Your task to perform on an android device: change the upload size in google photos Image 0: 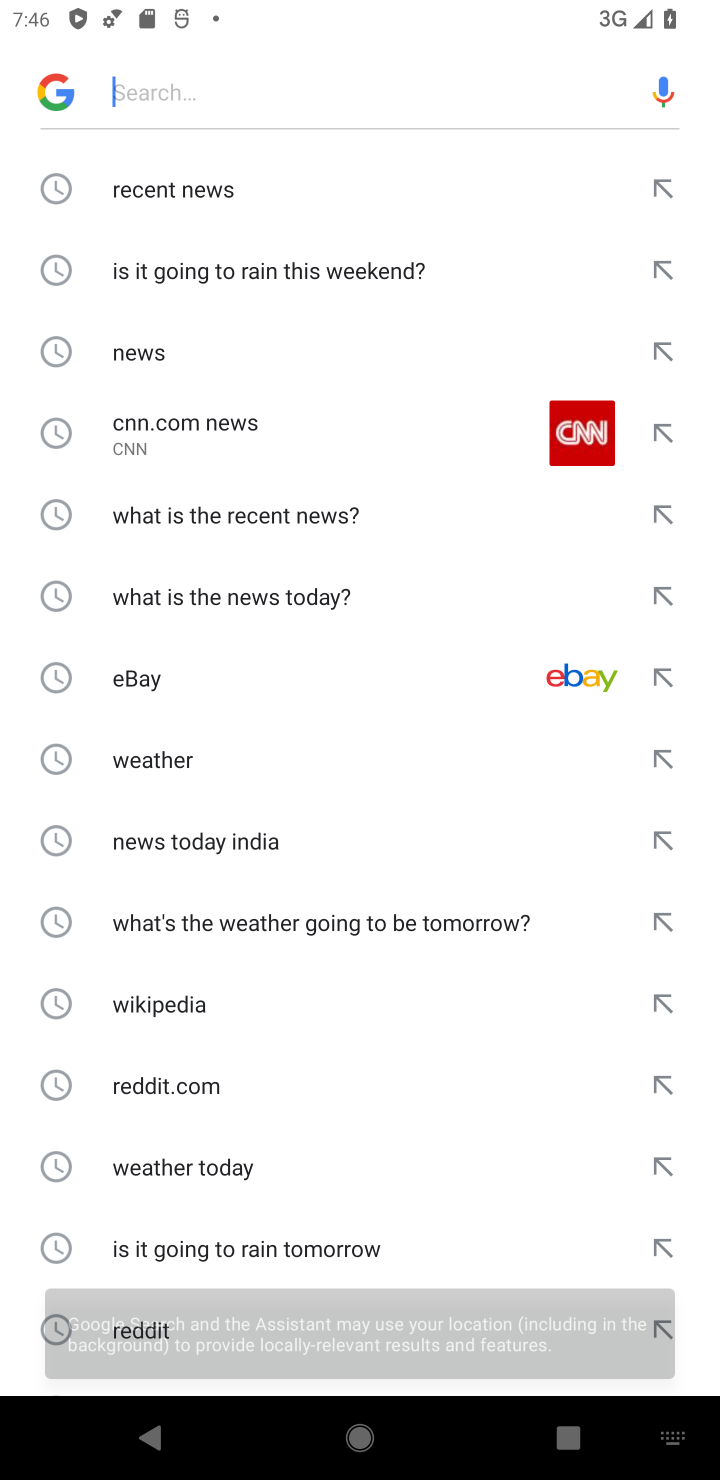
Step 0: press home button
Your task to perform on an android device: change the upload size in google photos Image 1: 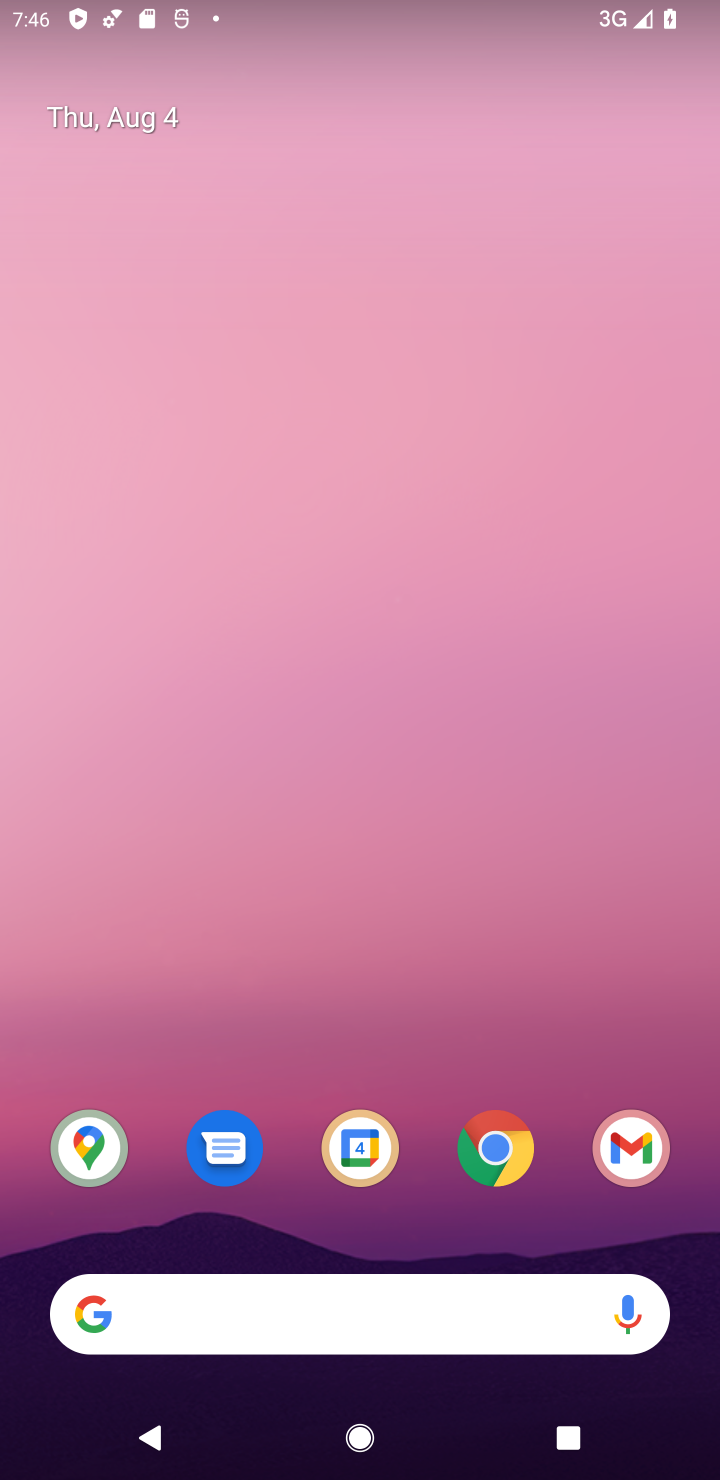
Step 1: drag from (555, 1096) to (441, 112)
Your task to perform on an android device: change the upload size in google photos Image 2: 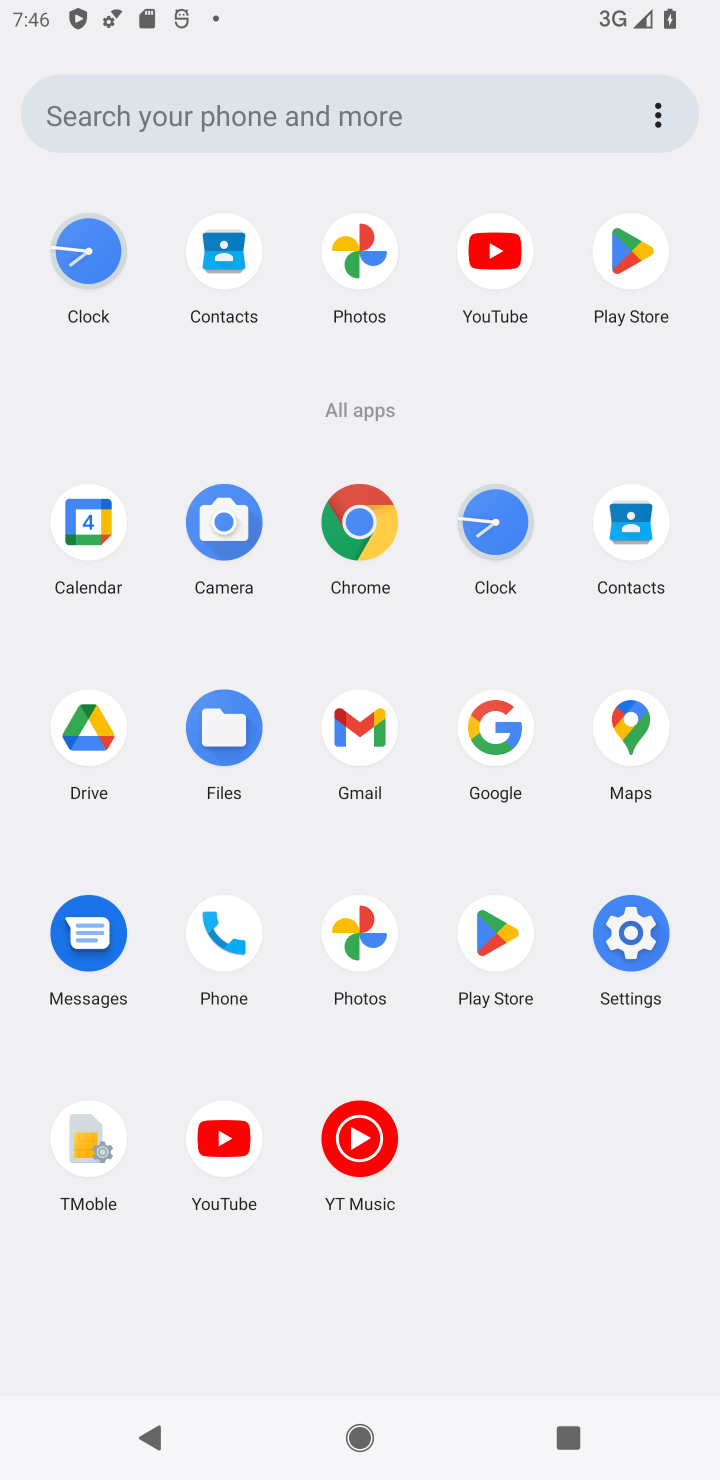
Step 2: click (355, 964)
Your task to perform on an android device: change the upload size in google photos Image 3: 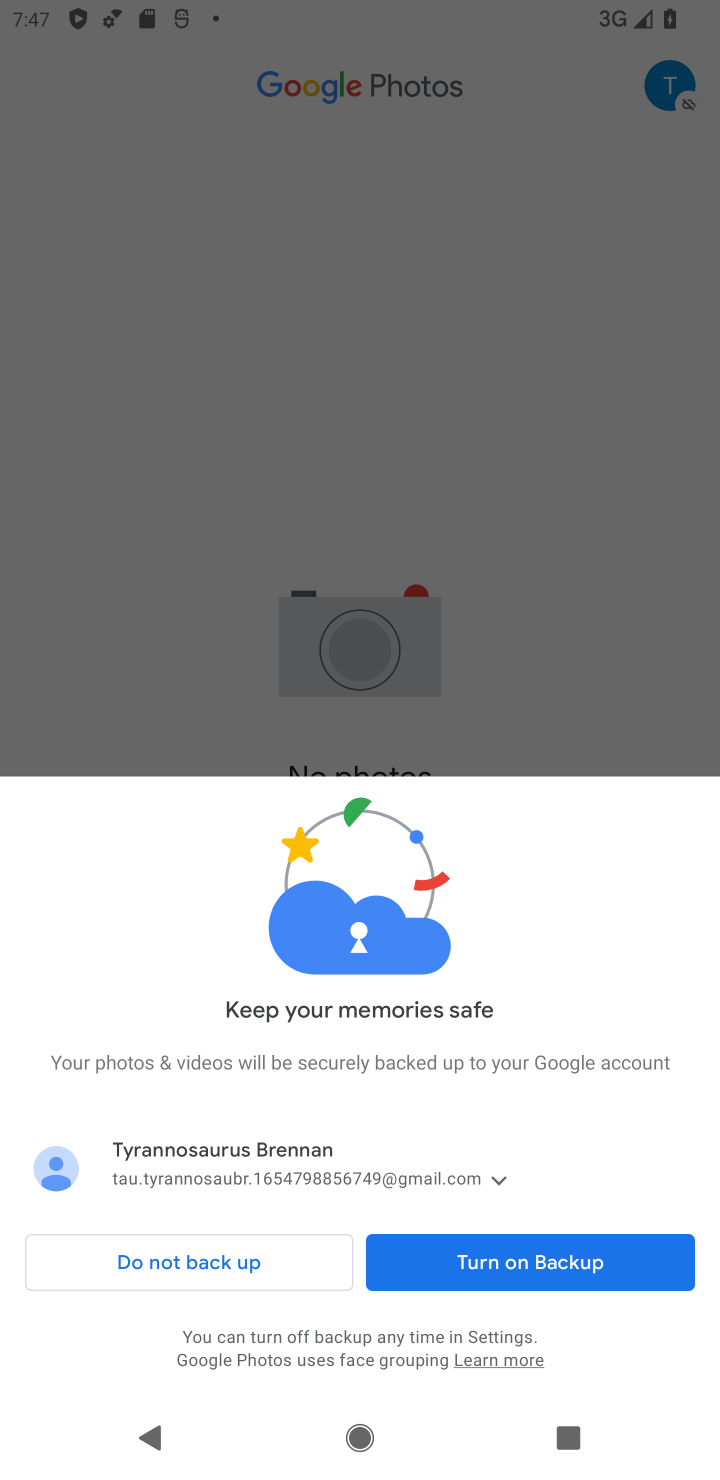
Step 3: click (626, 1277)
Your task to perform on an android device: change the upload size in google photos Image 4: 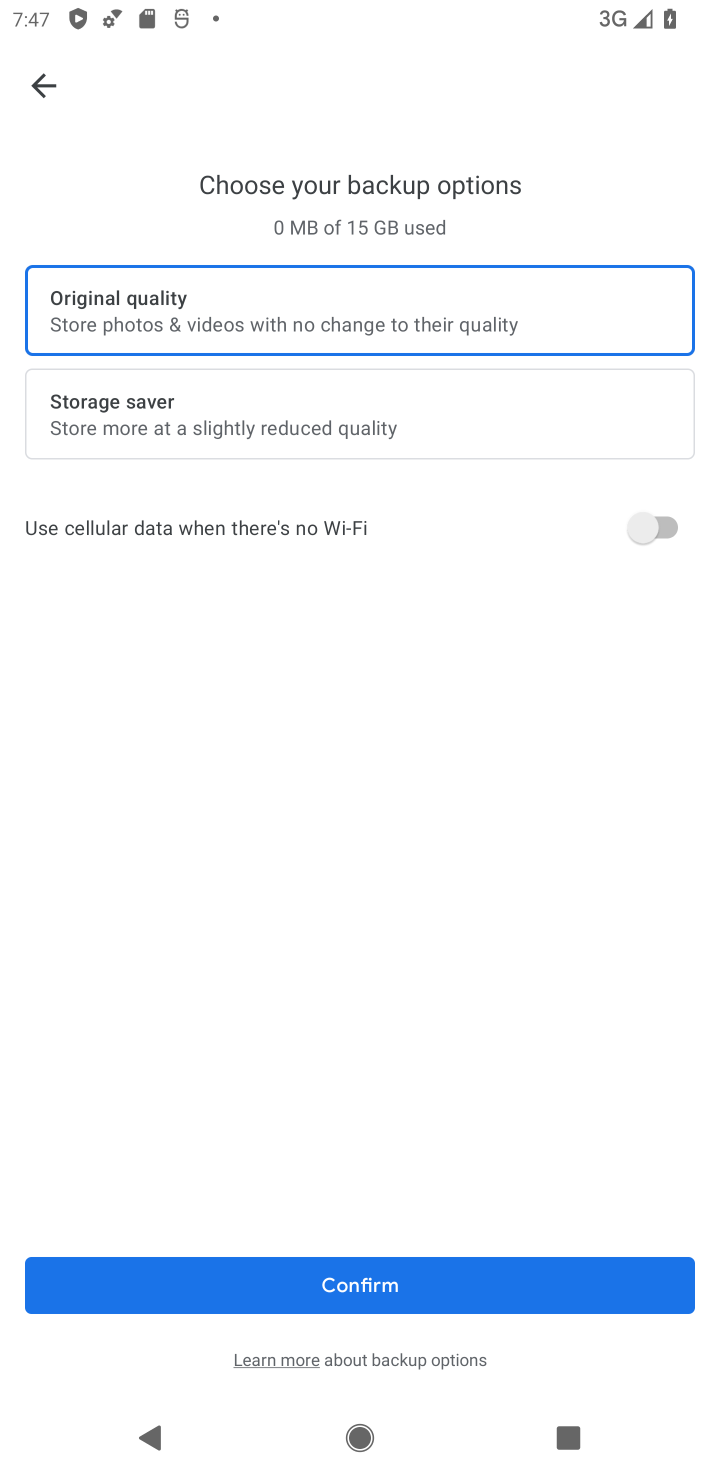
Step 4: click (611, 1281)
Your task to perform on an android device: change the upload size in google photos Image 5: 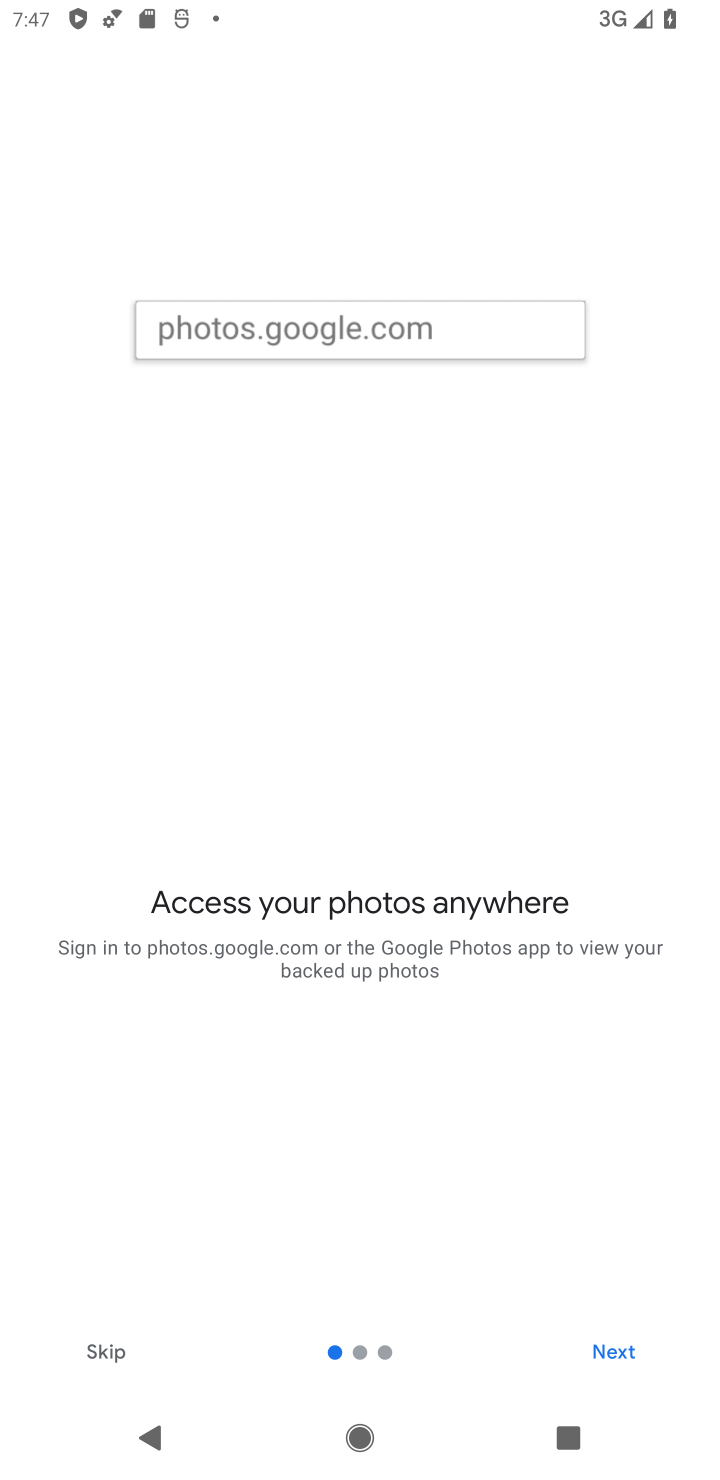
Step 5: click (123, 1347)
Your task to perform on an android device: change the upload size in google photos Image 6: 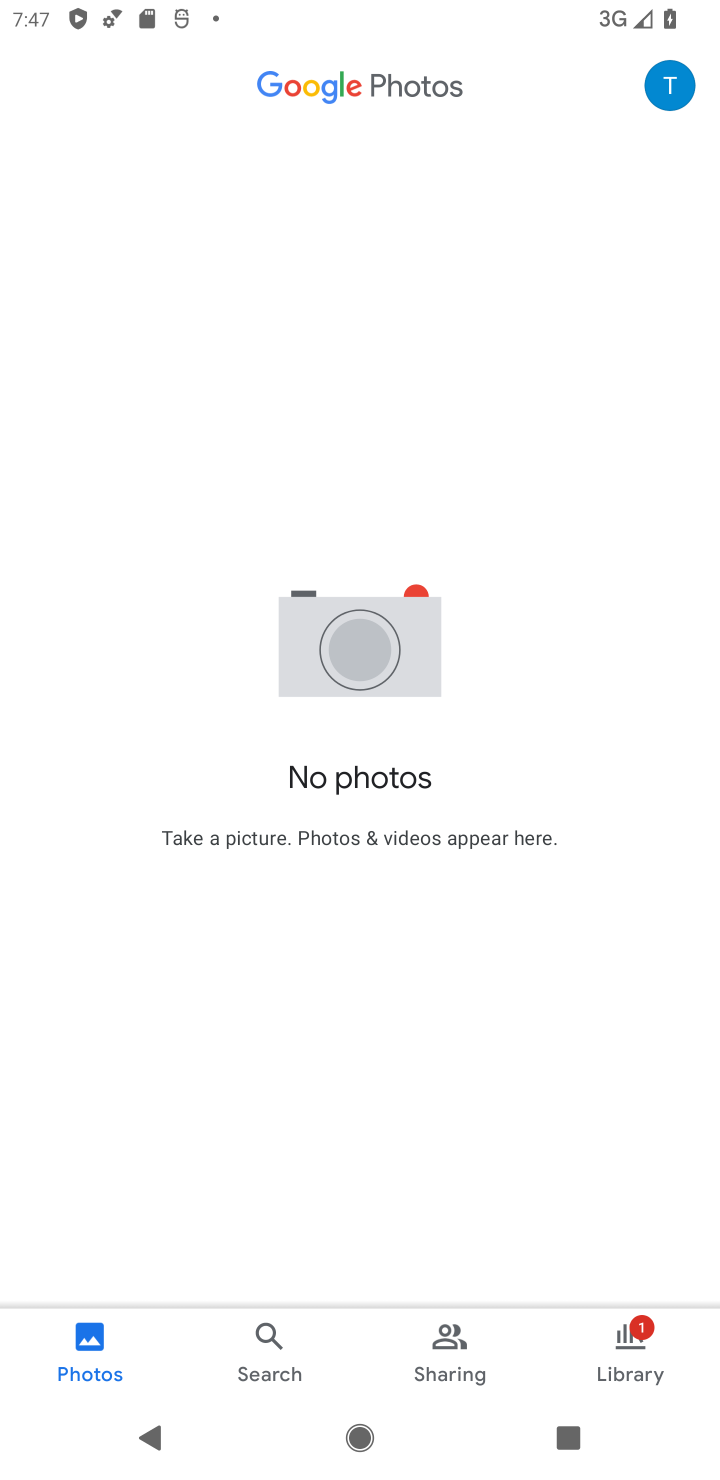
Step 6: click (679, 78)
Your task to perform on an android device: change the upload size in google photos Image 7: 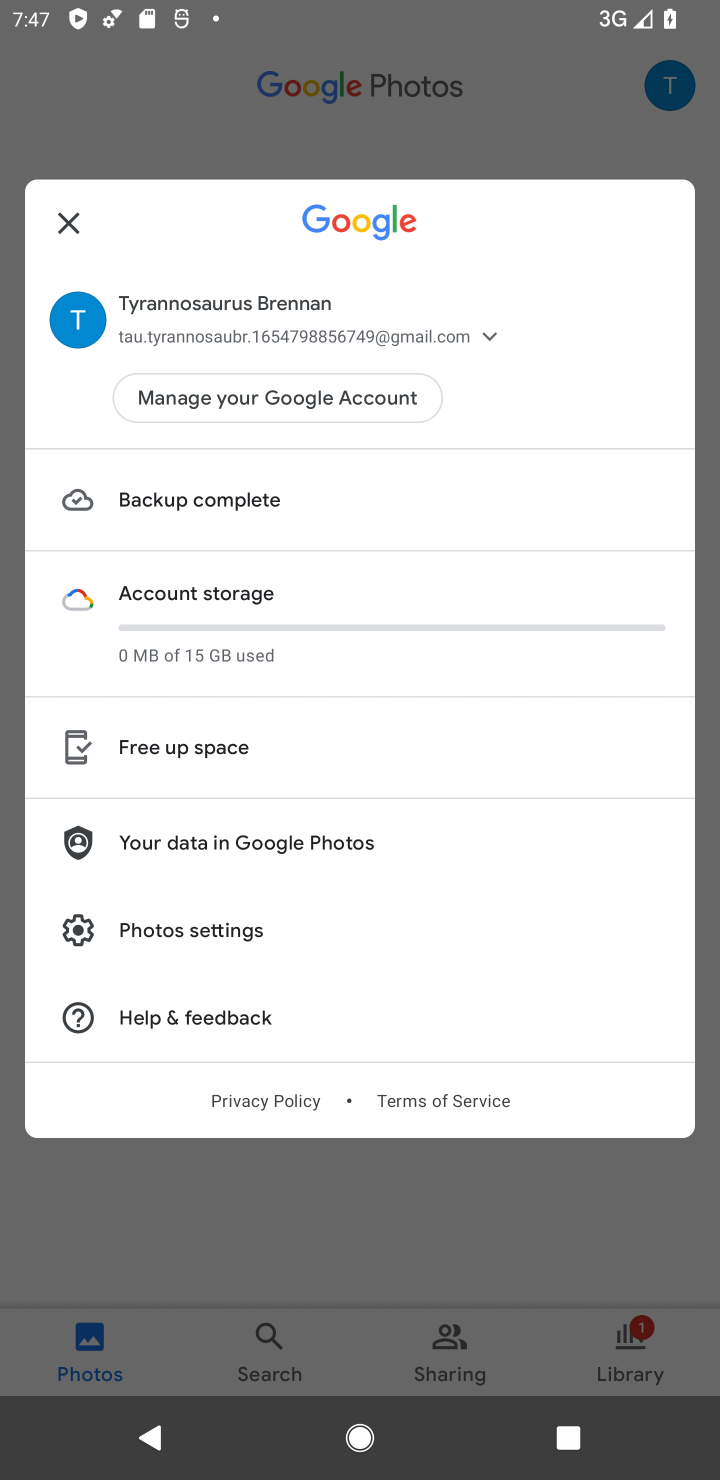
Step 7: click (267, 926)
Your task to perform on an android device: change the upload size in google photos Image 8: 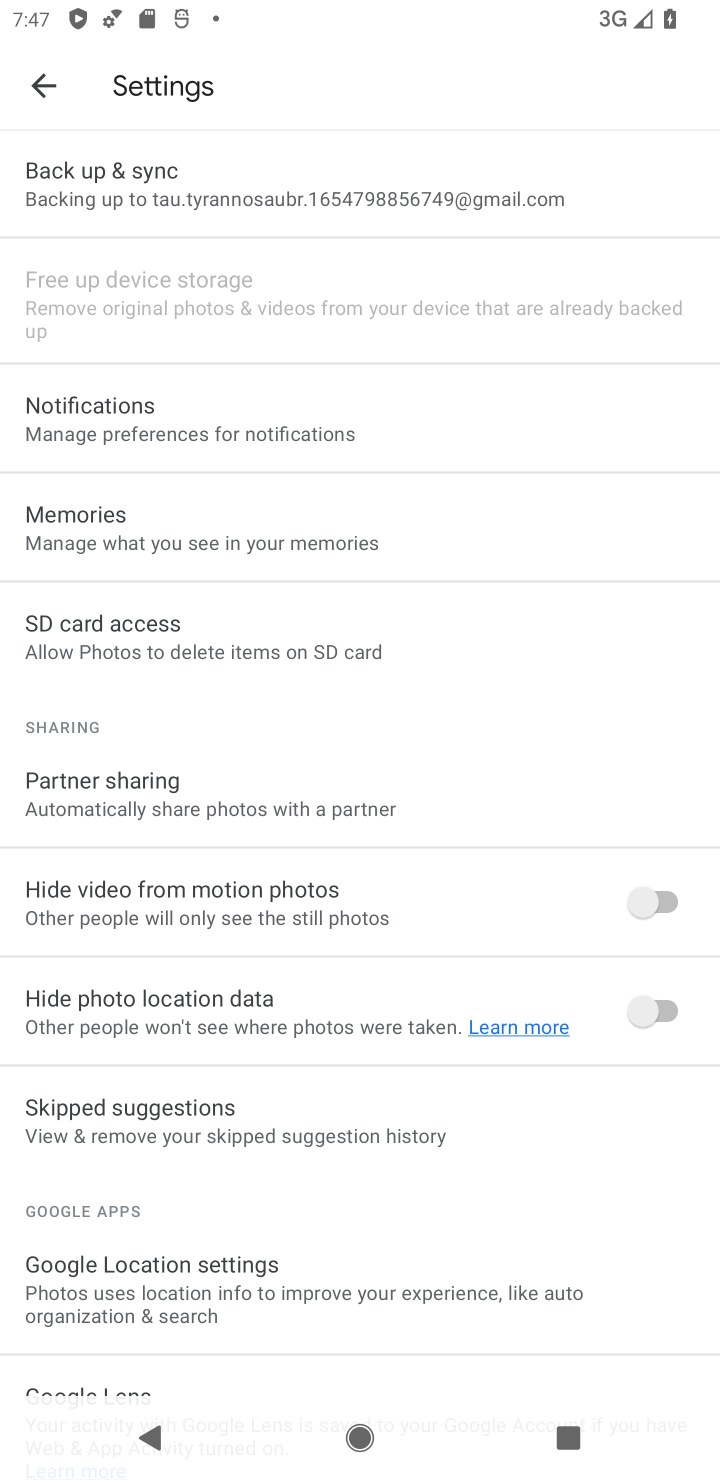
Step 8: click (359, 194)
Your task to perform on an android device: change the upload size in google photos Image 9: 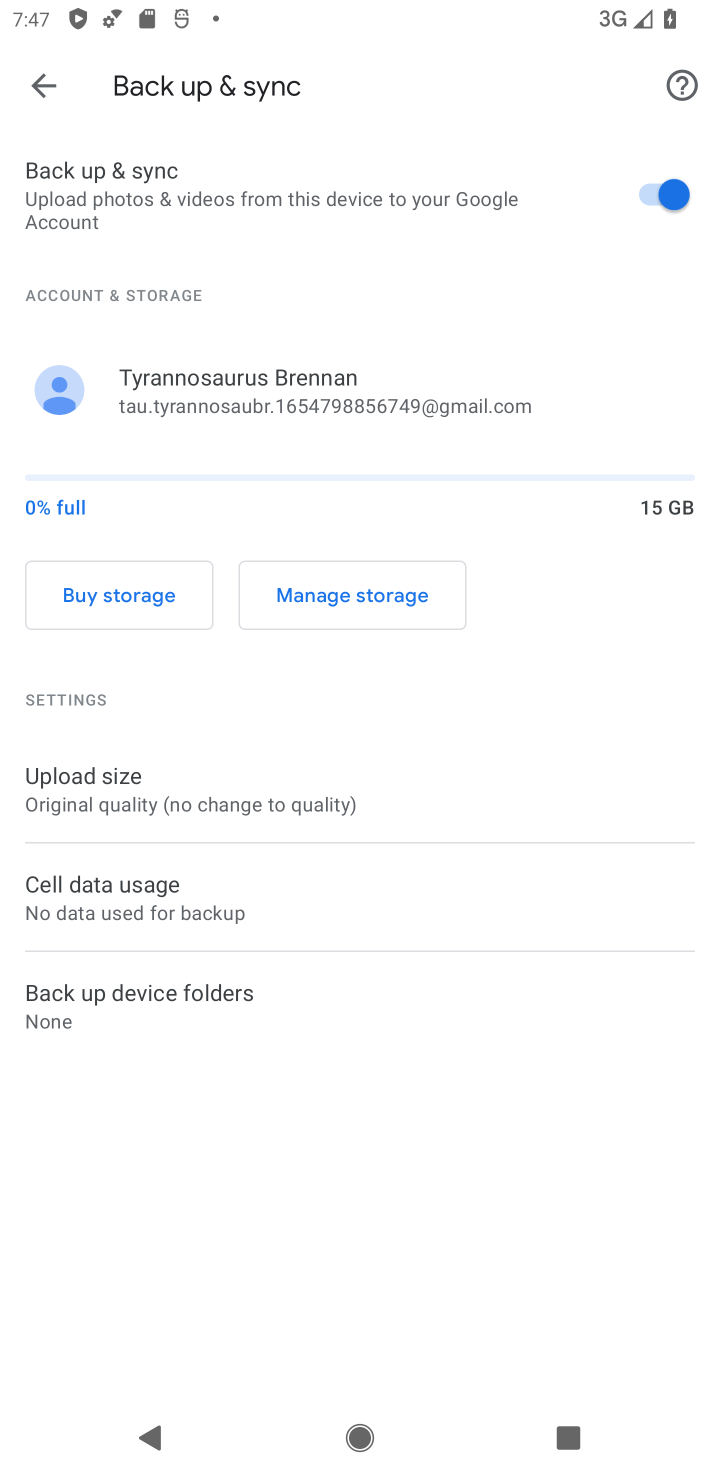
Step 9: click (166, 789)
Your task to perform on an android device: change the upload size in google photos Image 10: 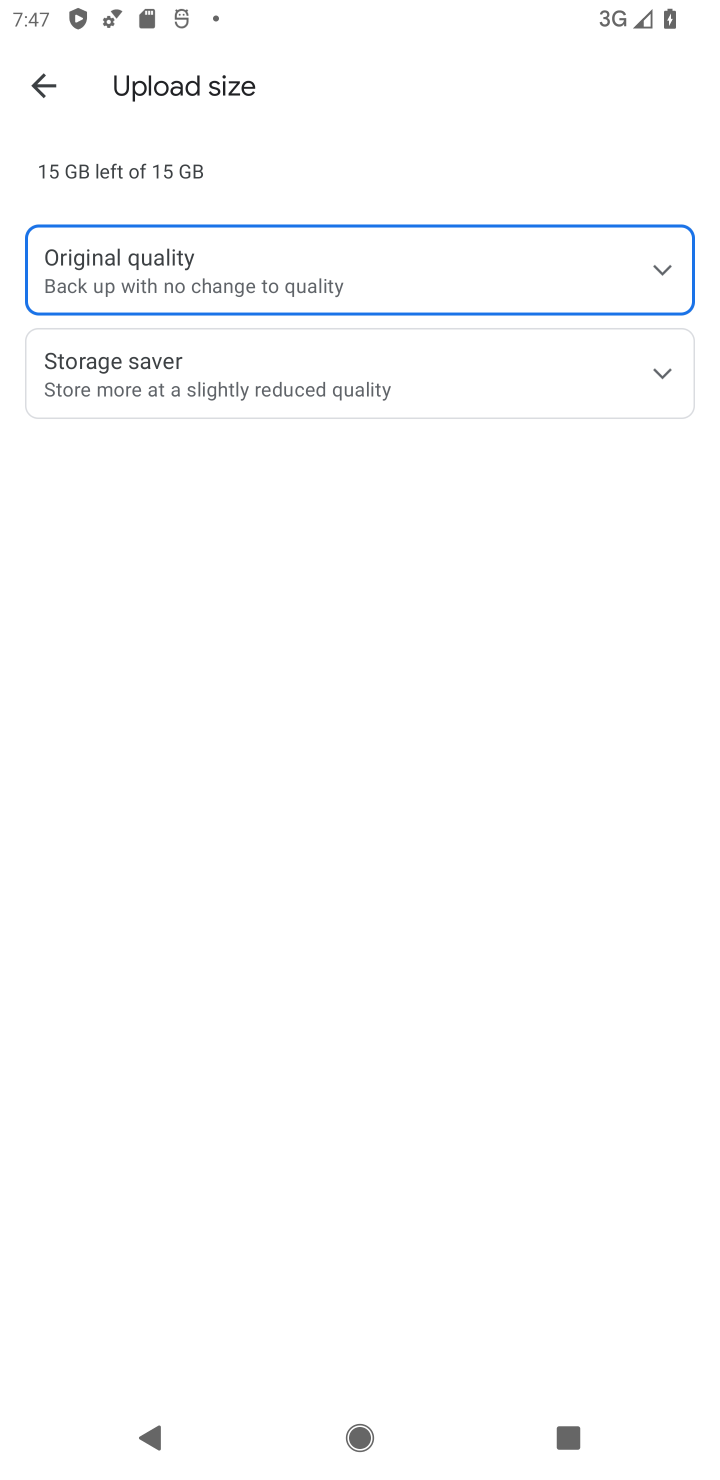
Step 10: click (254, 357)
Your task to perform on an android device: change the upload size in google photos Image 11: 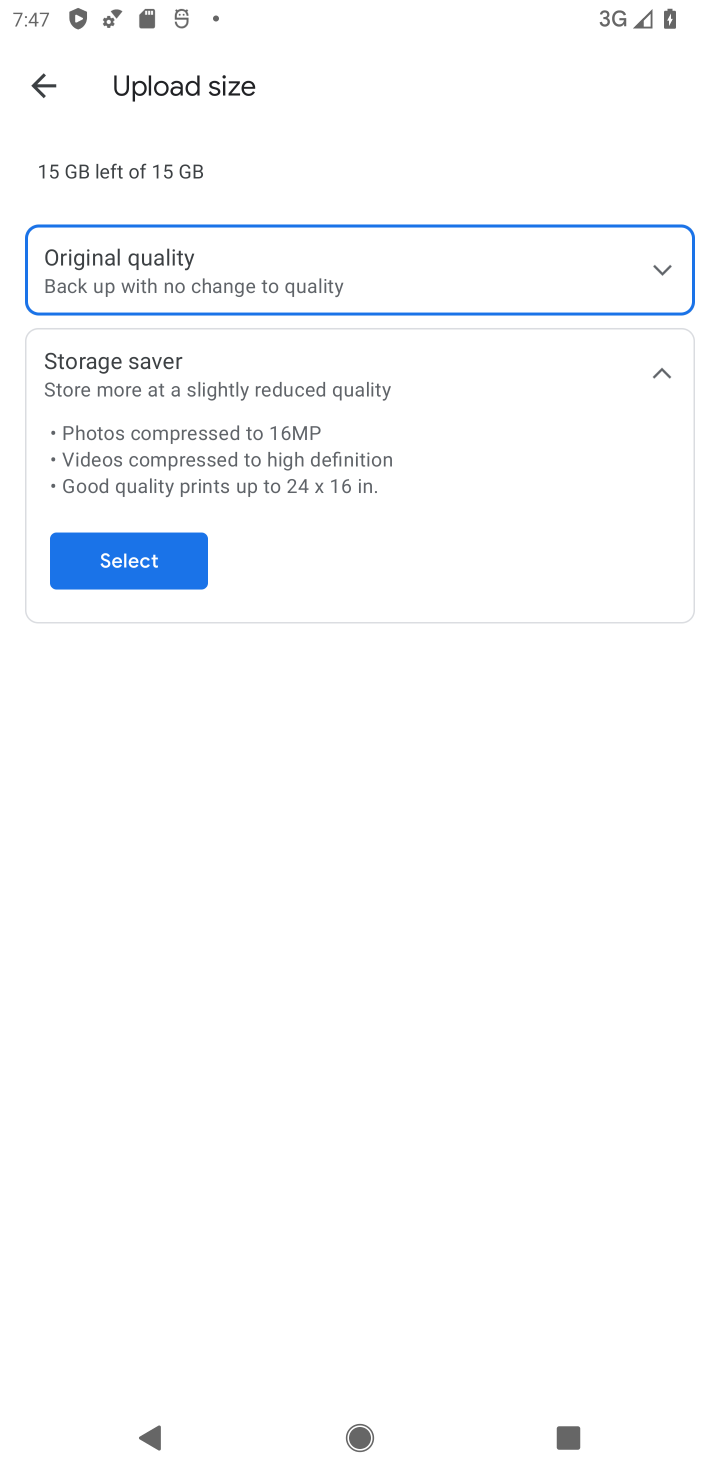
Step 11: click (157, 568)
Your task to perform on an android device: change the upload size in google photos Image 12: 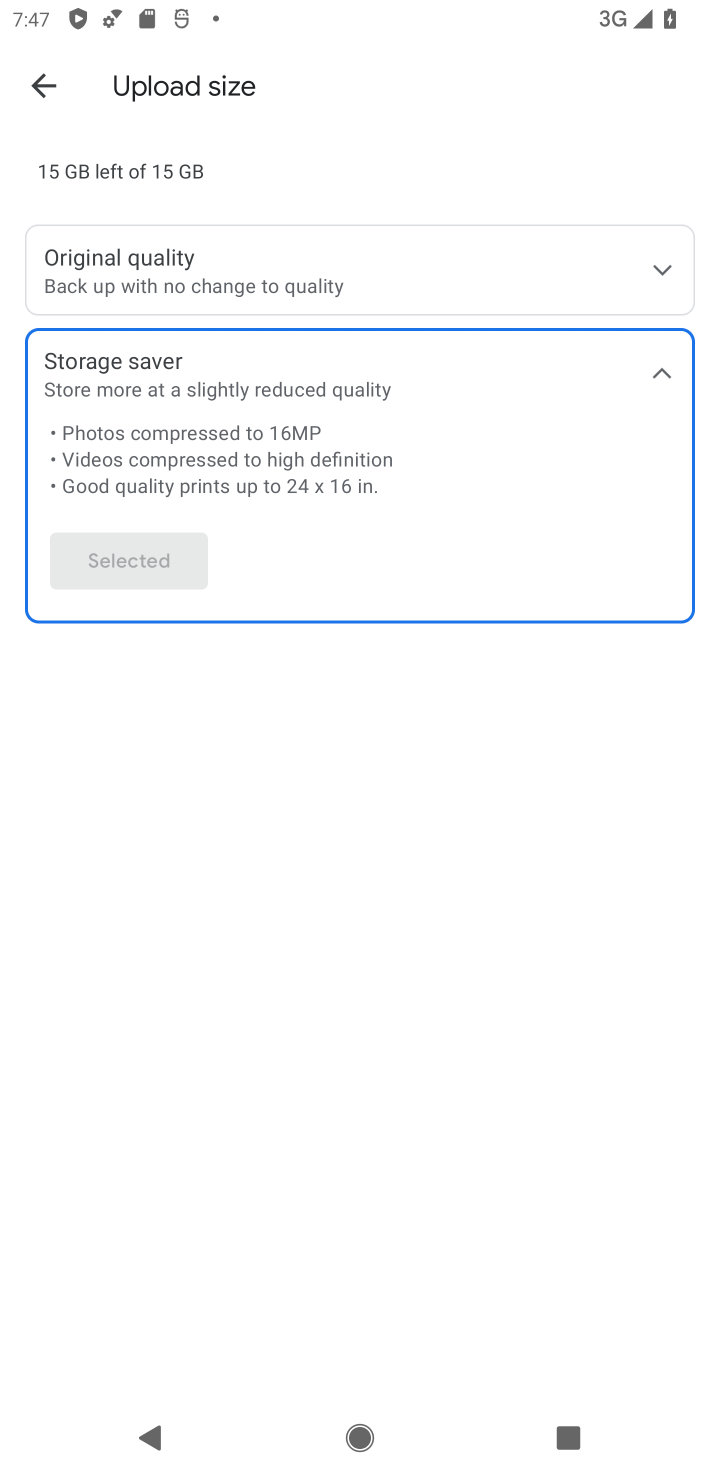
Step 12: task complete